Your task to perform on an android device: change notifications settings Image 0: 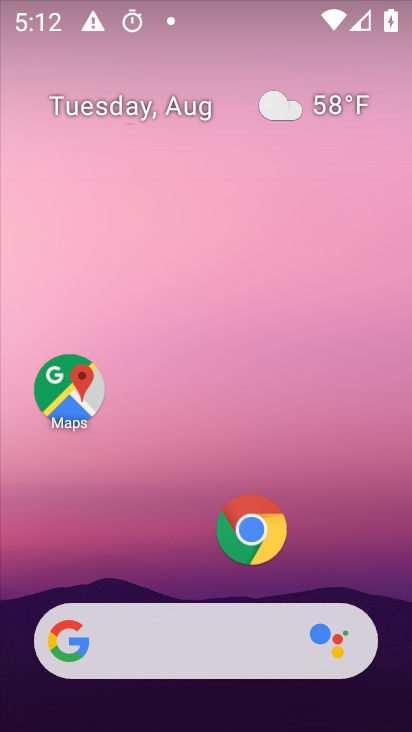
Step 0: drag from (182, 296) to (200, 157)
Your task to perform on an android device: change notifications settings Image 1: 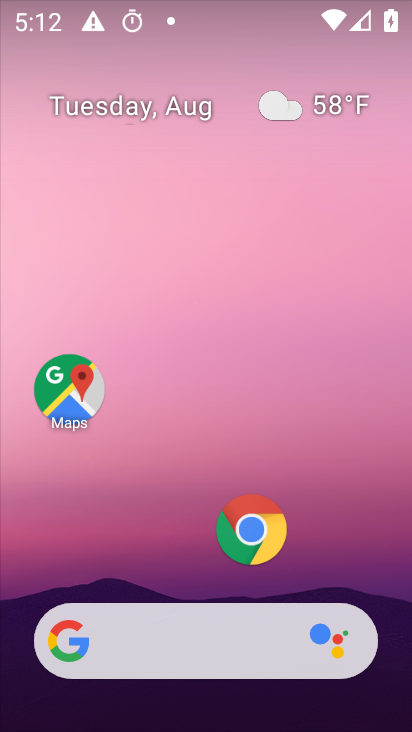
Step 1: drag from (191, 531) to (191, 191)
Your task to perform on an android device: change notifications settings Image 2: 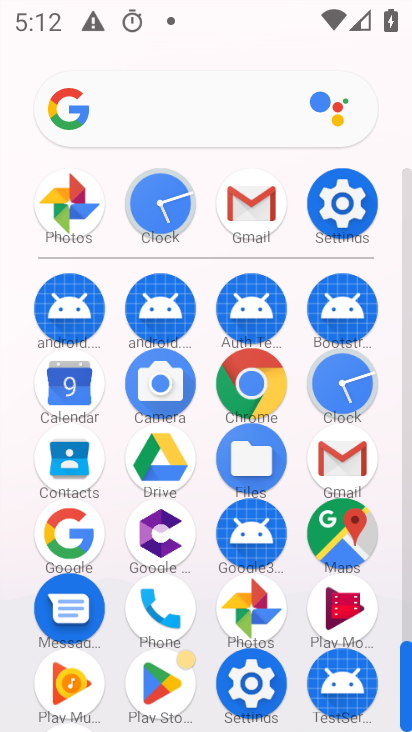
Step 2: click (331, 211)
Your task to perform on an android device: change notifications settings Image 3: 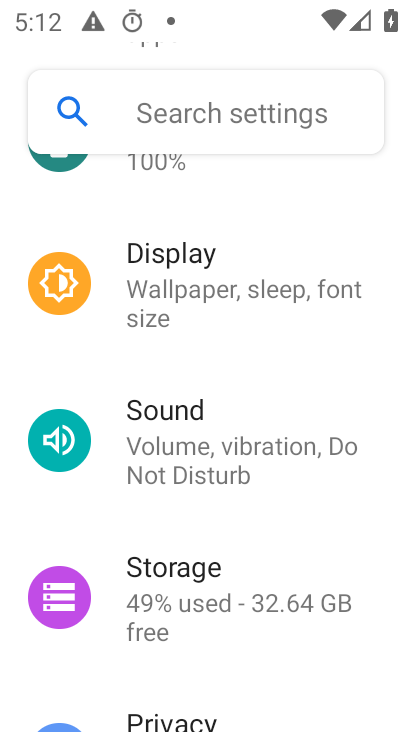
Step 3: drag from (184, 284) to (241, 600)
Your task to perform on an android device: change notifications settings Image 4: 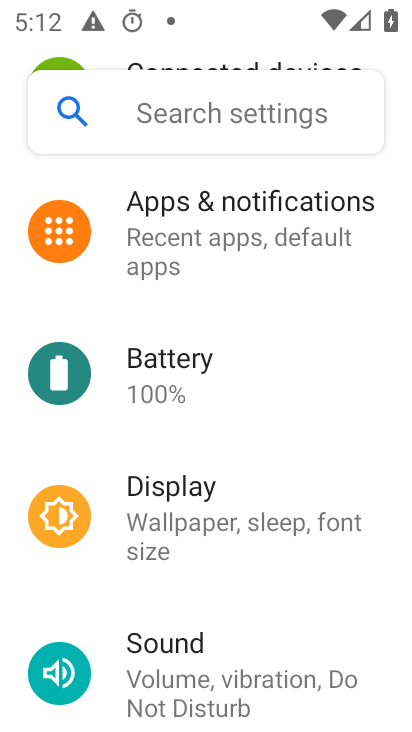
Step 4: click (226, 246)
Your task to perform on an android device: change notifications settings Image 5: 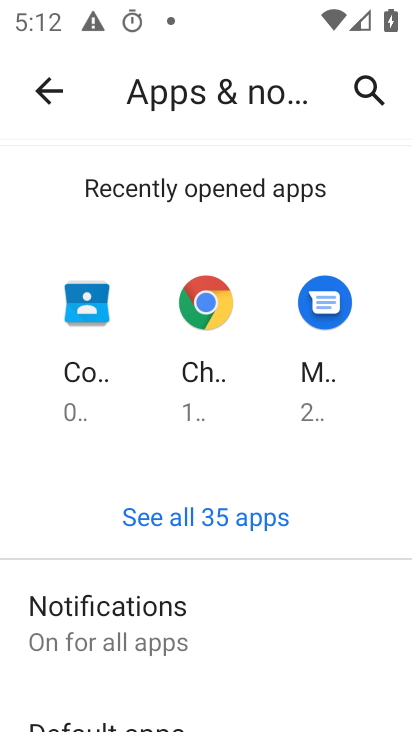
Step 5: click (185, 606)
Your task to perform on an android device: change notifications settings Image 6: 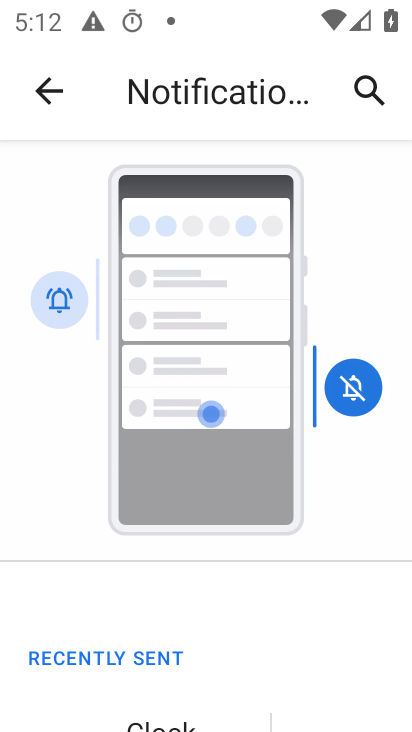
Step 6: drag from (200, 660) to (201, 238)
Your task to perform on an android device: change notifications settings Image 7: 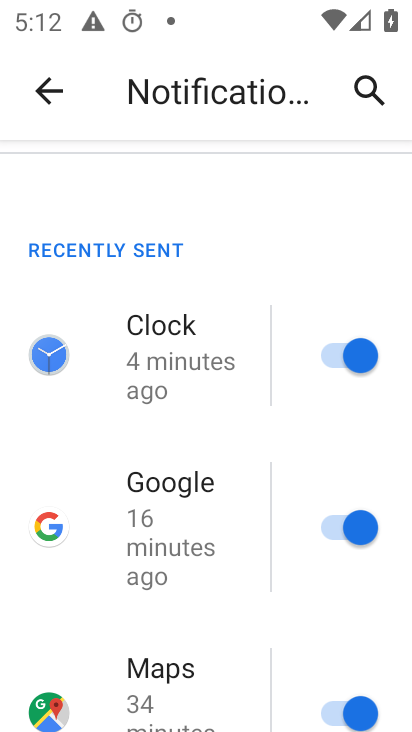
Step 7: drag from (188, 643) to (216, 254)
Your task to perform on an android device: change notifications settings Image 8: 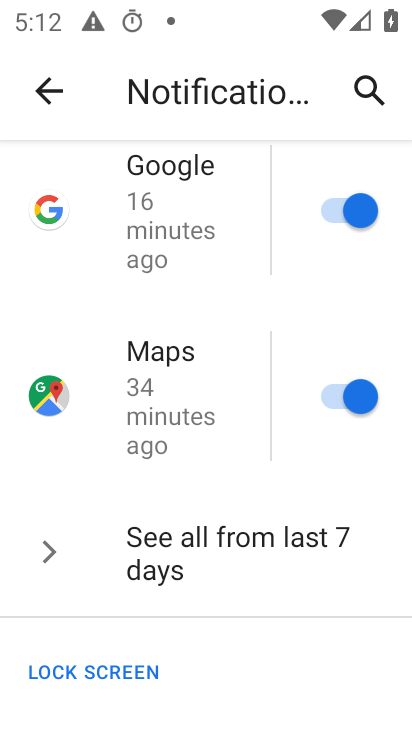
Step 8: drag from (240, 604) to (266, 303)
Your task to perform on an android device: change notifications settings Image 9: 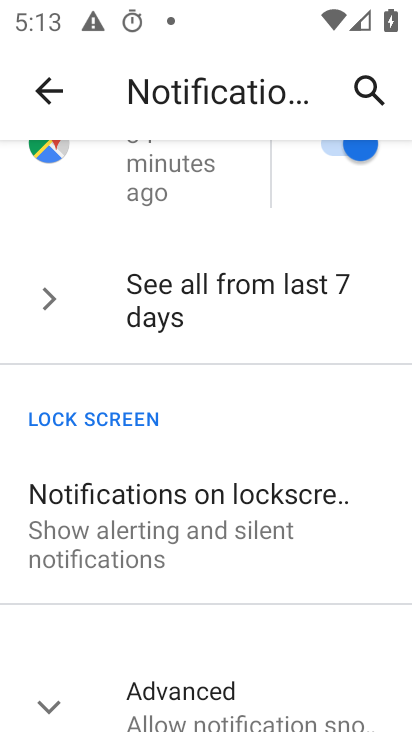
Step 9: drag from (244, 617) to (245, 303)
Your task to perform on an android device: change notifications settings Image 10: 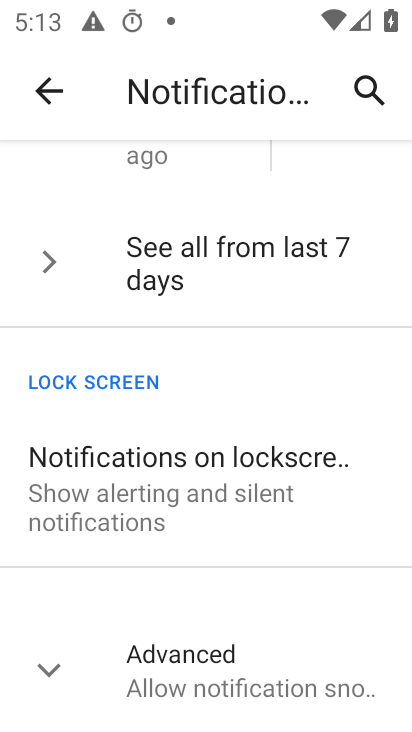
Step 10: click (163, 498)
Your task to perform on an android device: change notifications settings Image 11: 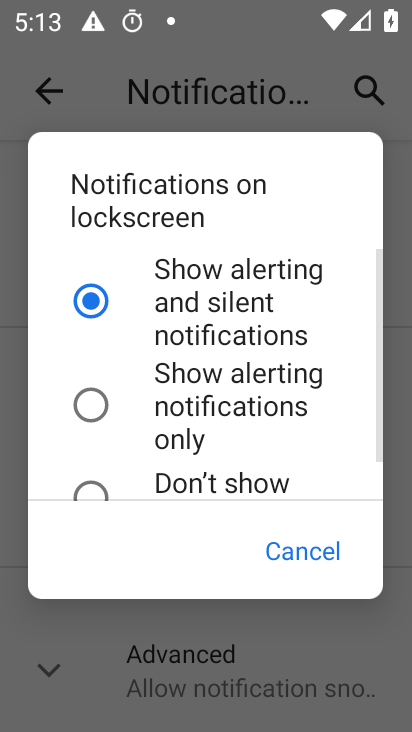
Step 11: click (163, 487)
Your task to perform on an android device: change notifications settings Image 12: 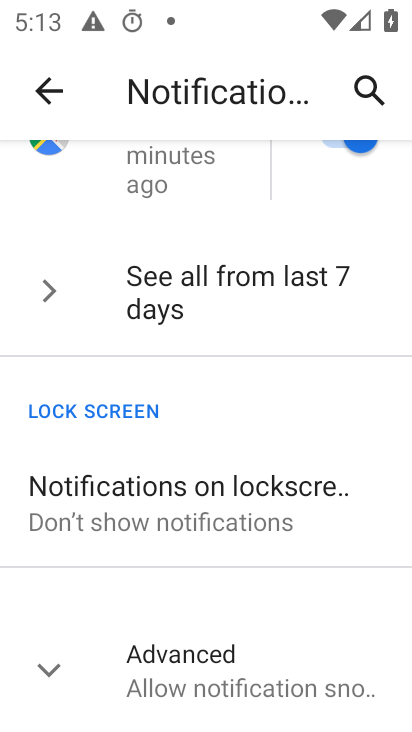
Step 12: task complete